Your task to perform on an android device: stop showing notifications on the lock screen Image 0: 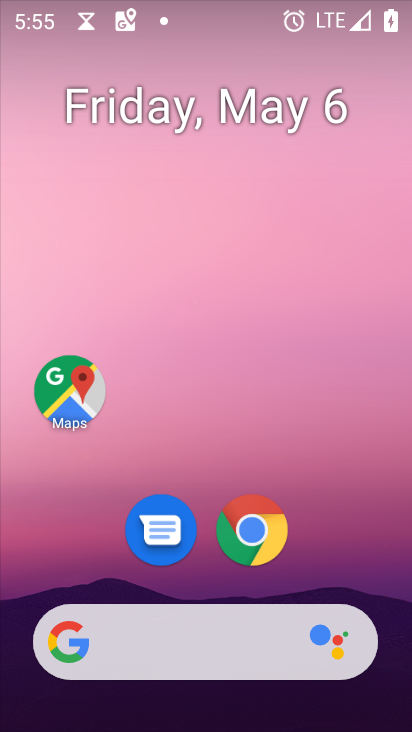
Step 0: drag from (336, 562) to (217, 89)
Your task to perform on an android device: stop showing notifications on the lock screen Image 1: 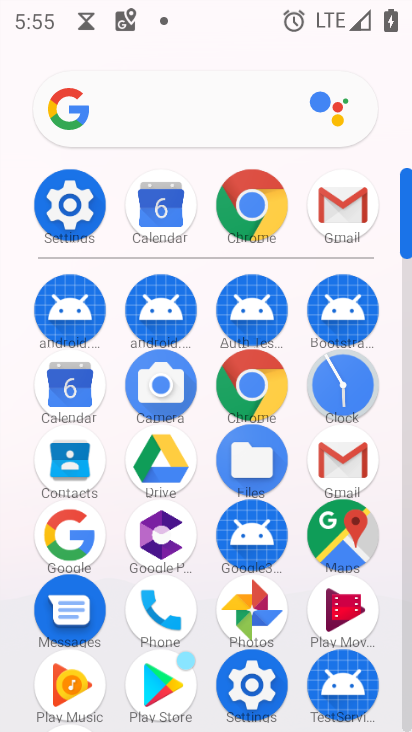
Step 1: click (61, 194)
Your task to perform on an android device: stop showing notifications on the lock screen Image 2: 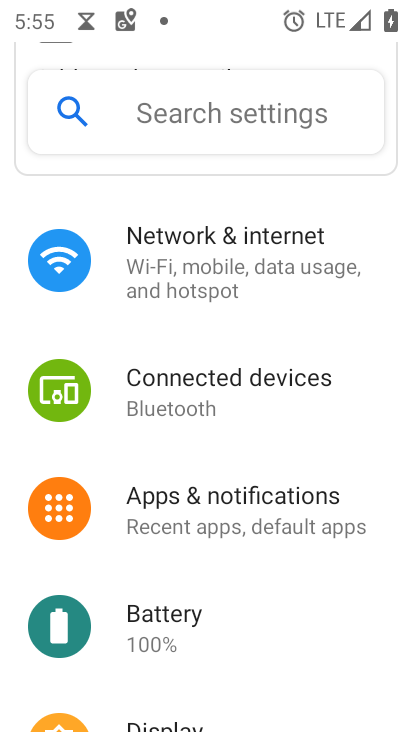
Step 2: click (257, 524)
Your task to perform on an android device: stop showing notifications on the lock screen Image 3: 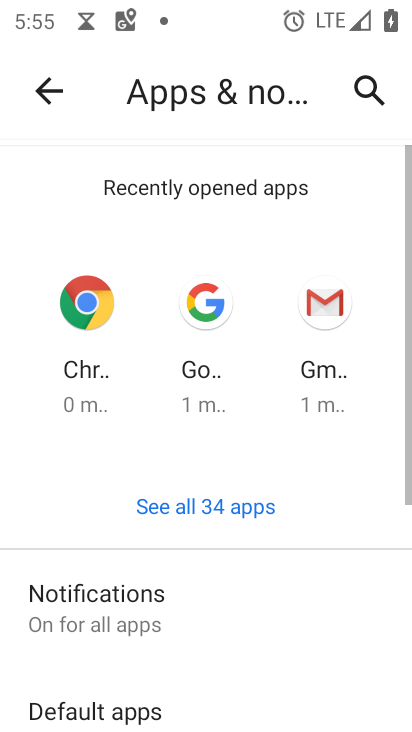
Step 3: click (121, 610)
Your task to perform on an android device: stop showing notifications on the lock screen Image 4: 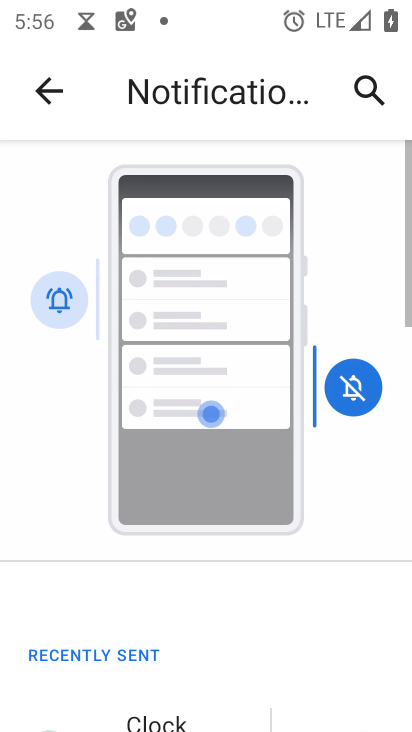
Step 4: drag from (274, 664) to (211, 54)
Your task to perform on an android device: stop showing notifications on the lock screen Image 5: 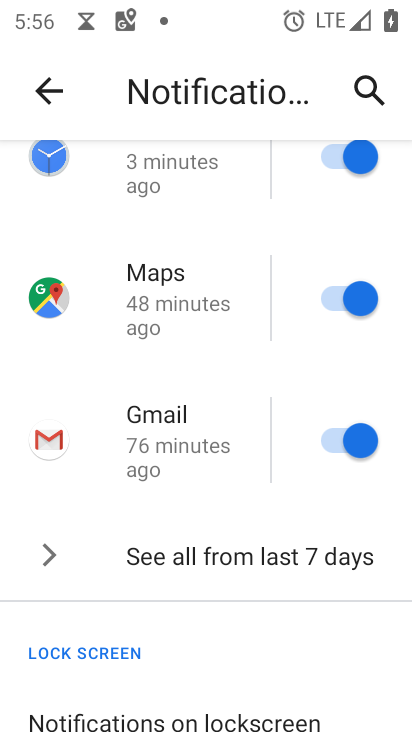
Step 5: click (173, 708)
Your task to perform on an android device: stop showing notifications on the lock screen Image 6: 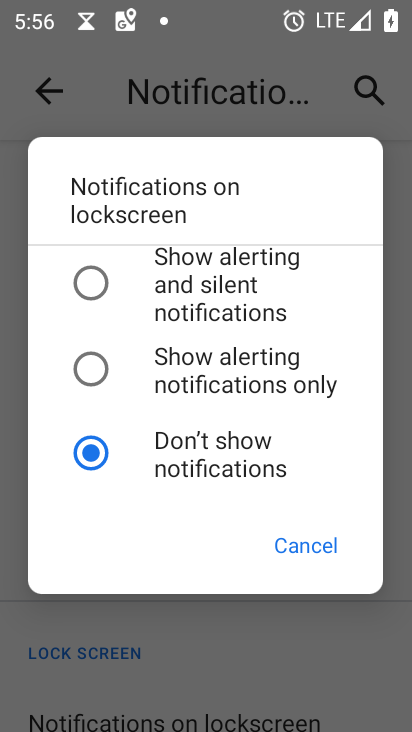
Step 6: task complete